Your task to perform on an android device: remove spam from my inbox in the gmail app Image 0: 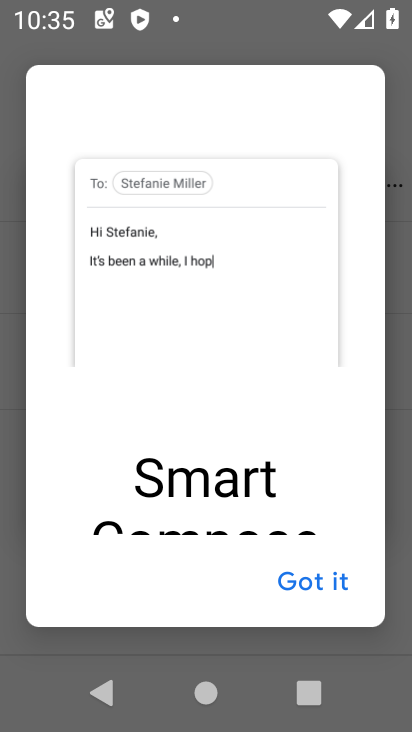
Step 0: press home button
Your task to perform on an android device: remove spam from my inbox in the gmail app Image 1: 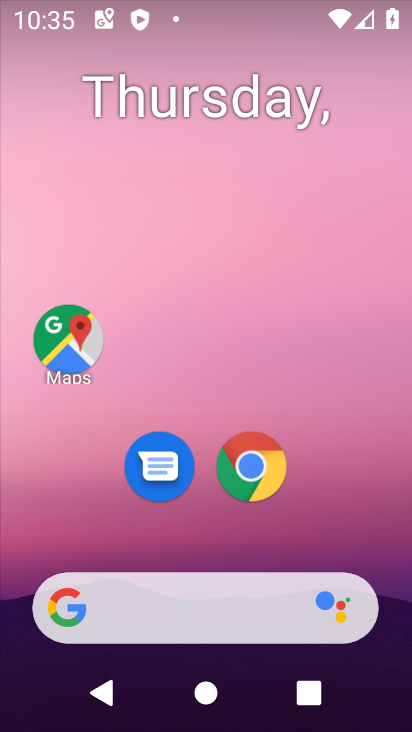
Step 1: drag from (196, 555) to (213, 192)
Your task to perform on an android device: remove spam from my inbox in the gmail app Image 2: 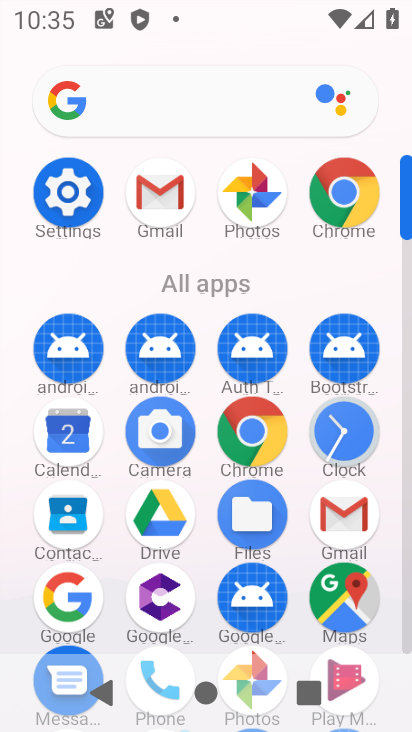
Step 2: click (157, 184)
Your task to perform on an android device: remove spam from my inbox in the gmail app Image 3: 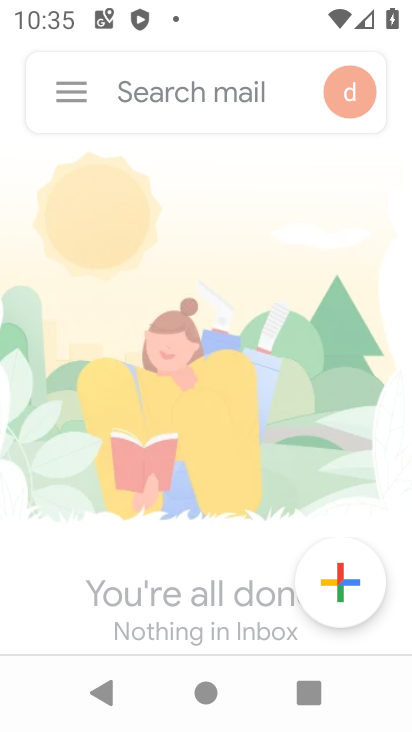
Step 3: click (54, 95)
Your task to perform on an android device: remove spam from my inbox in the gmail app Image 4: 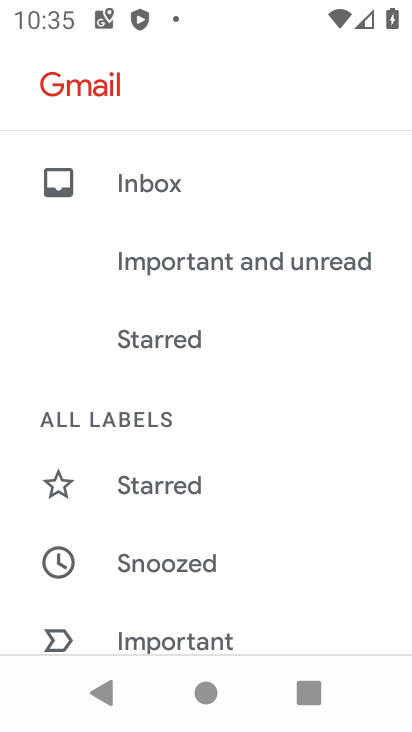
Step 4: drag from (203, 593) to (232, 316)
Your task to perform on an android device: remove spam from my inbox in the gmail app Image 5: 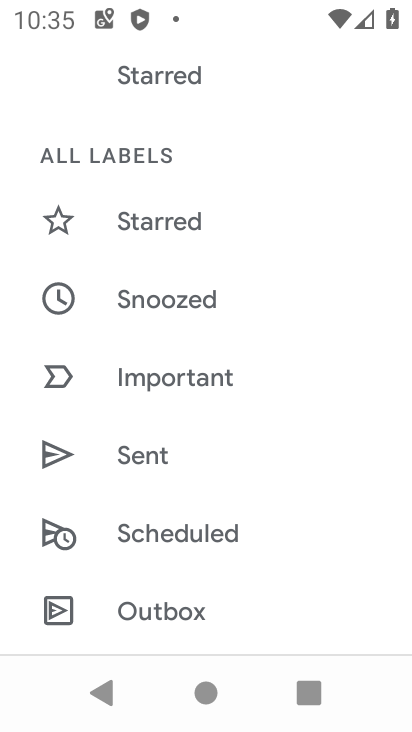
Step 5: drag from (175, 539) to (182, 289)
Your task to perform on an android device: remove spam from my inbox in the gmail app Image 6: 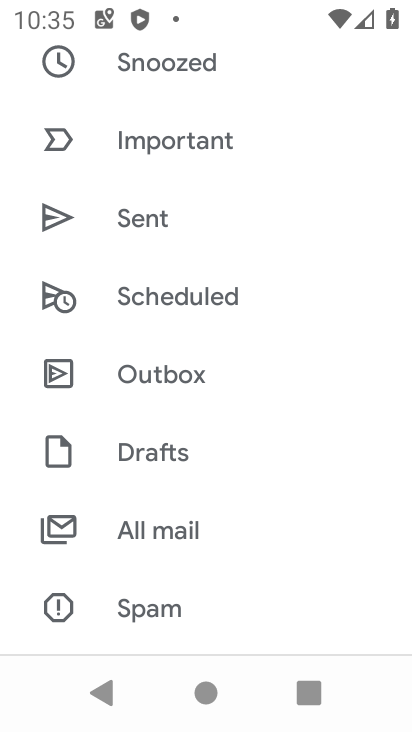
Step 6: click (181, 608)
Your task to perform on an android device: remove spam from my inbox in the gmail app Image 7: 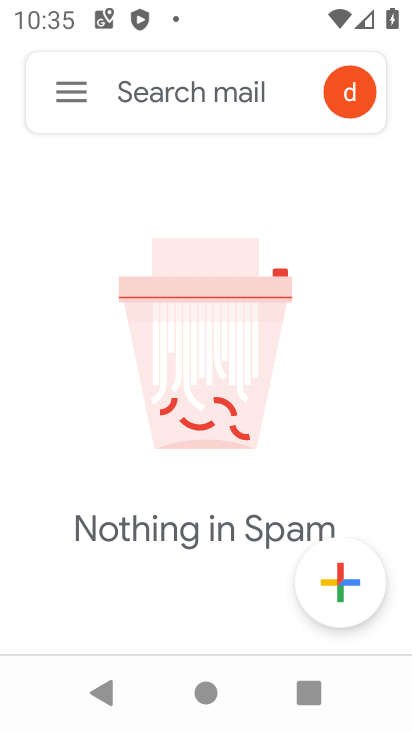
Step 7: task complete